Your task to perform on an android device: Open CNN.com Image 0: 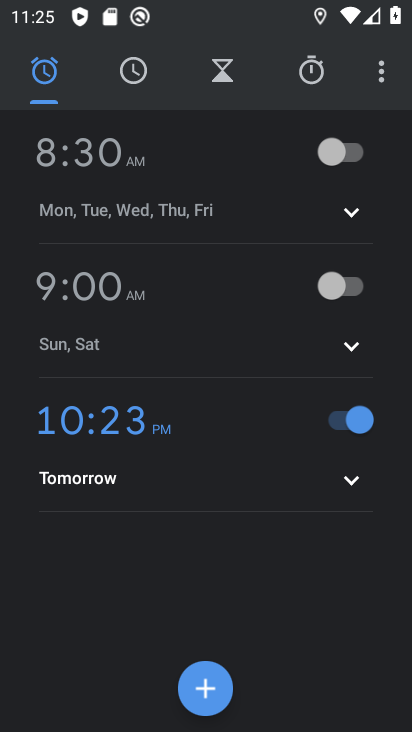
Step 0: press home button
Your task to perform on an android device: Open CNN.com Image 1: 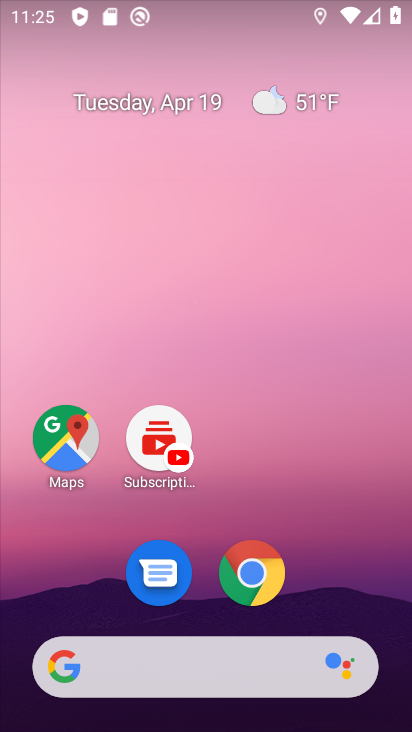
Step 1: click (257, 569)
Your task to perform on an android device: Open CNN.com Image 2: 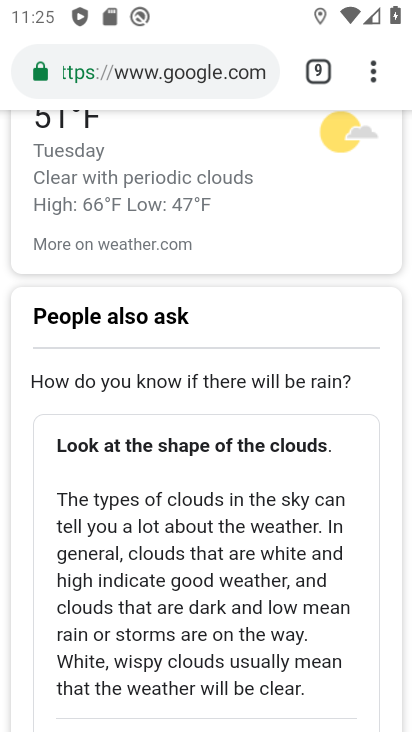
Step 2: click (316, 79)
Your task to perform on an android device: Open CNN.com Image 3: 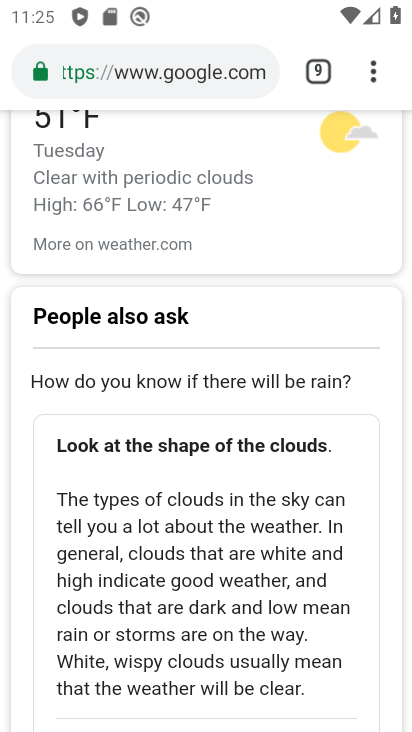
Step 3: click (315, 78)
Your task to perform on an android device: Open CNN.com Image 4: 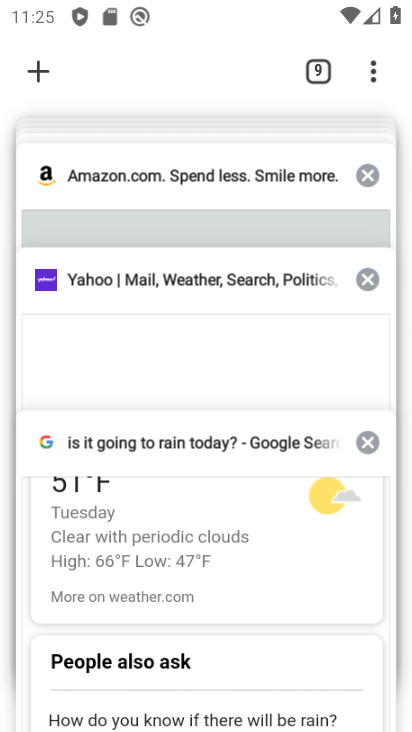
Step 4: click (44, 74)
Your task to perform on an android device: Open CNN.com Image 5: 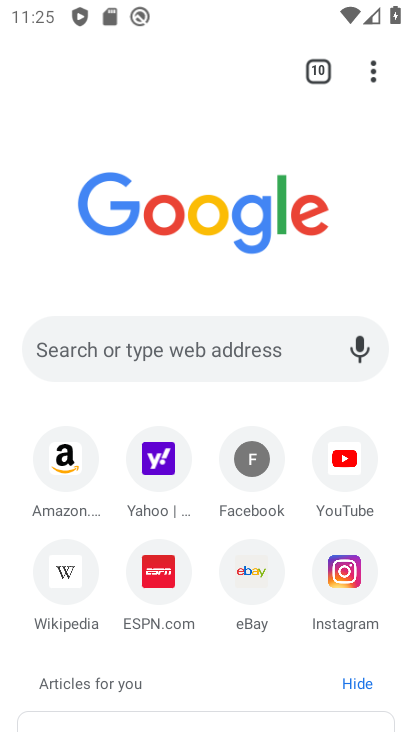
Step 5: click (198, 346)
Your task to perform on an android device: Open CNN.com Image 6: 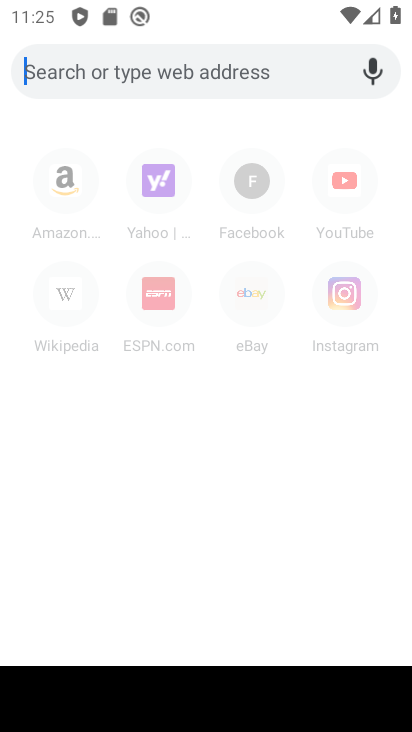
Step 6: type "cnn.com"
Your task to perform on an android device: Open CNN.com Image 7: 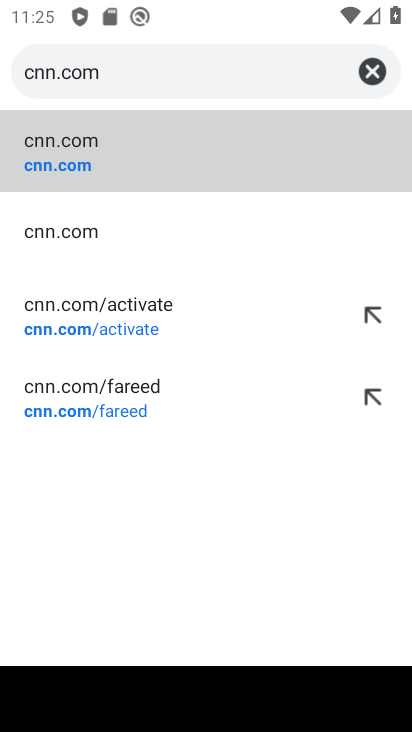
Step 7: click (76, 177)
Your task to perform on an android device: Open CNN.com Image 8: 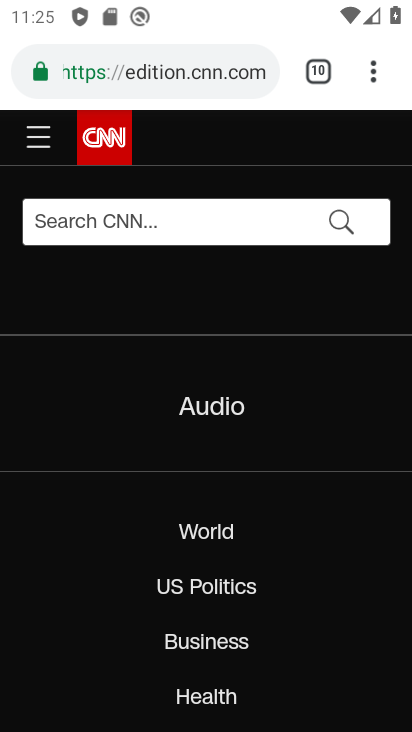
Step 8: task complete